Your task to perform on an android device: Search for amazon basics triple a on walmart.com, select the first entry, and add it to the cart. Image 0: 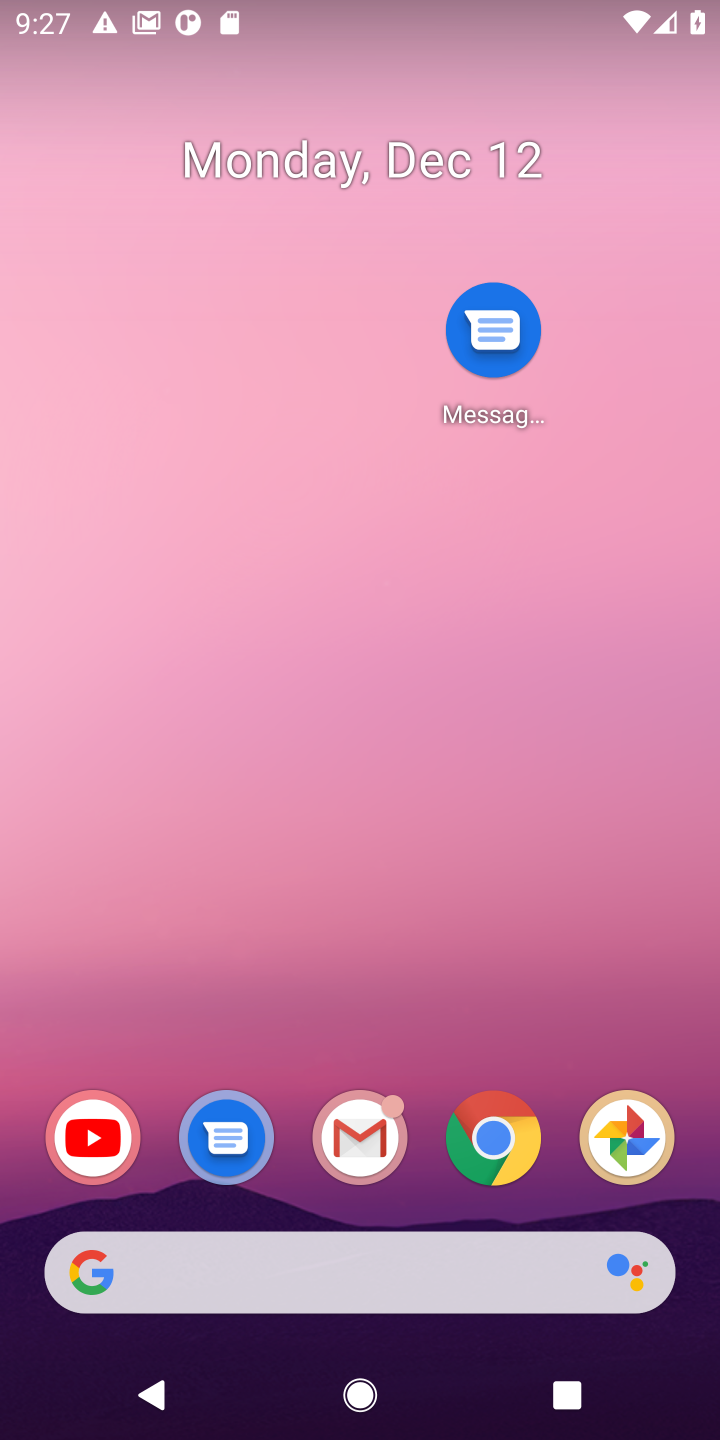
Step 0: drag from (279, 1241) to (390, 341)
Your task to perform on an android device: Search for amazon basics triple a on walmart.com, select the first entry, and add it to the cart. Image 1: 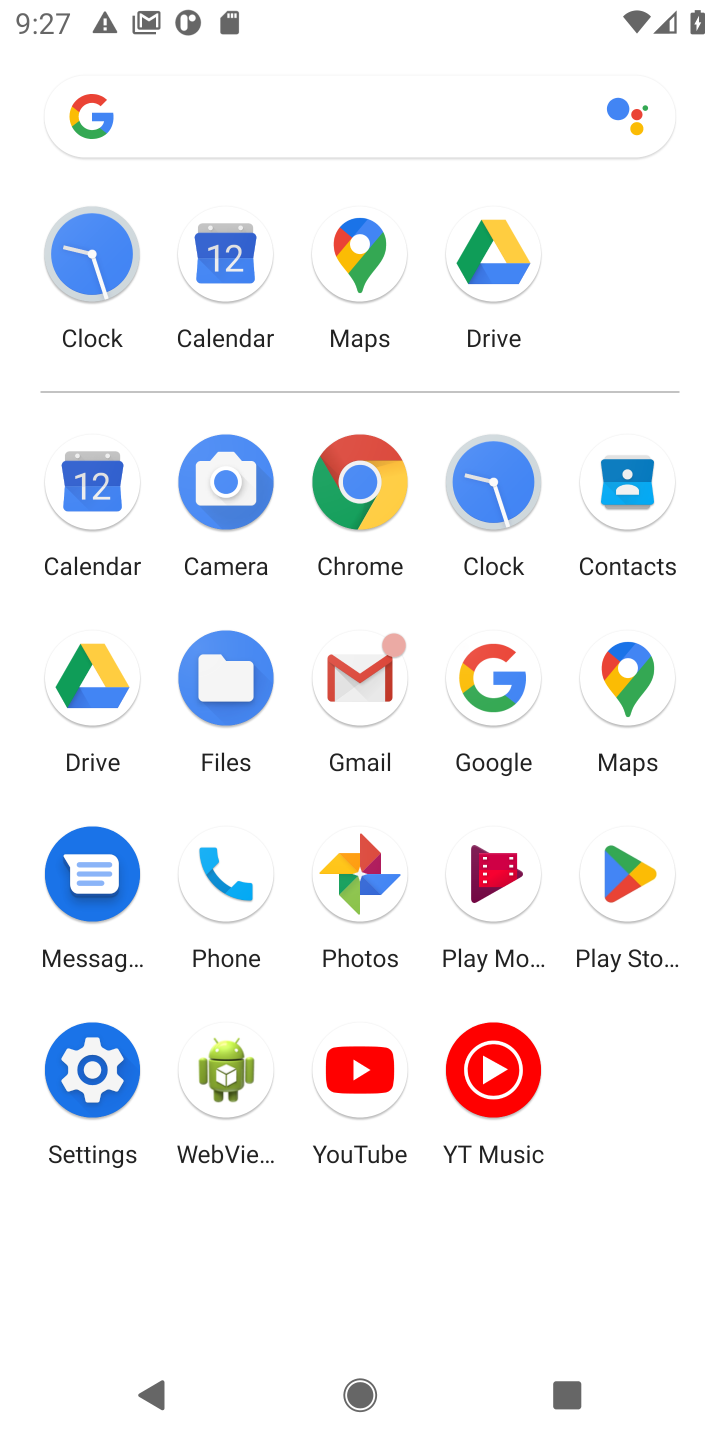
Step 1: click (485, 676)
Your task to perform on an android device: Search for amazon basics triple a on walmart.com, select the first entry, and add it to the cart. Image 2: 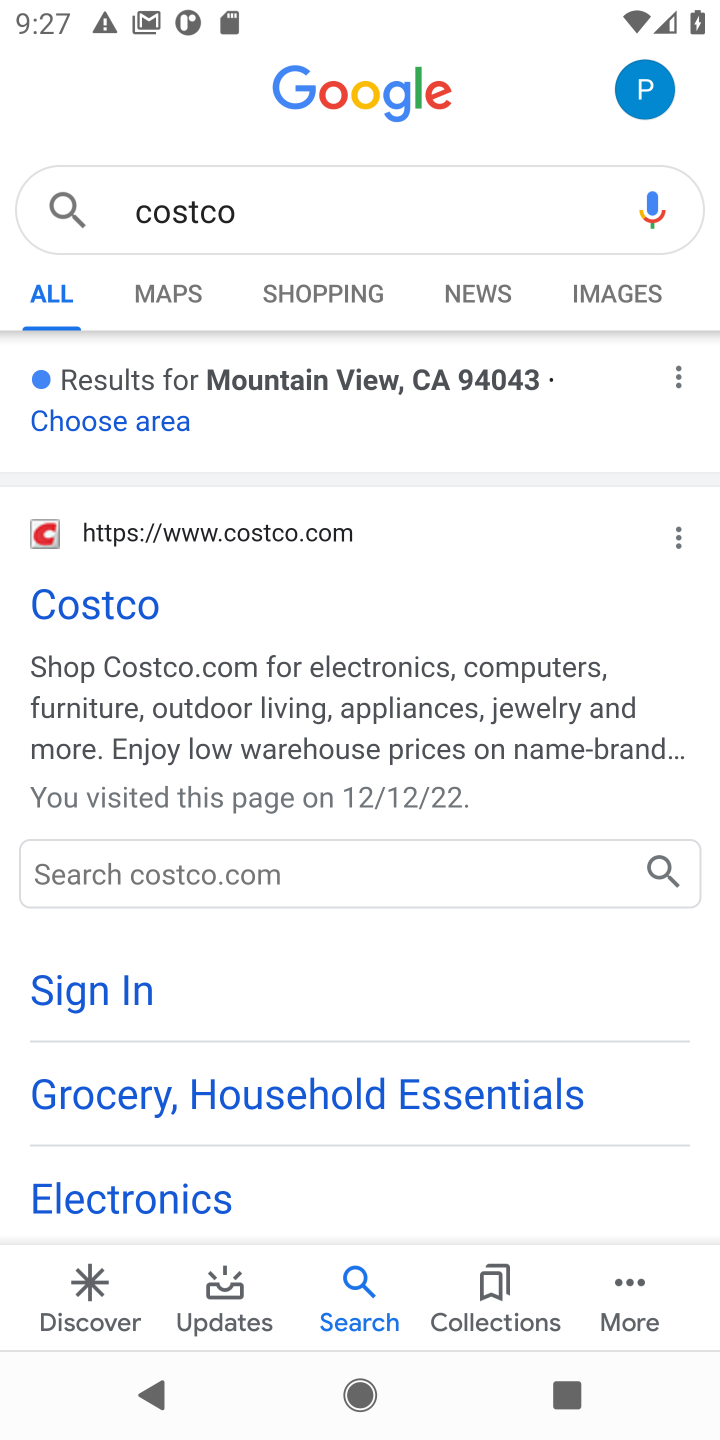
Step 2: click (203, 206)
Your task to perform on an android device: Search for amazon basics triple a on walmart.com, select the first entry, and add it to the cart. Image 3: 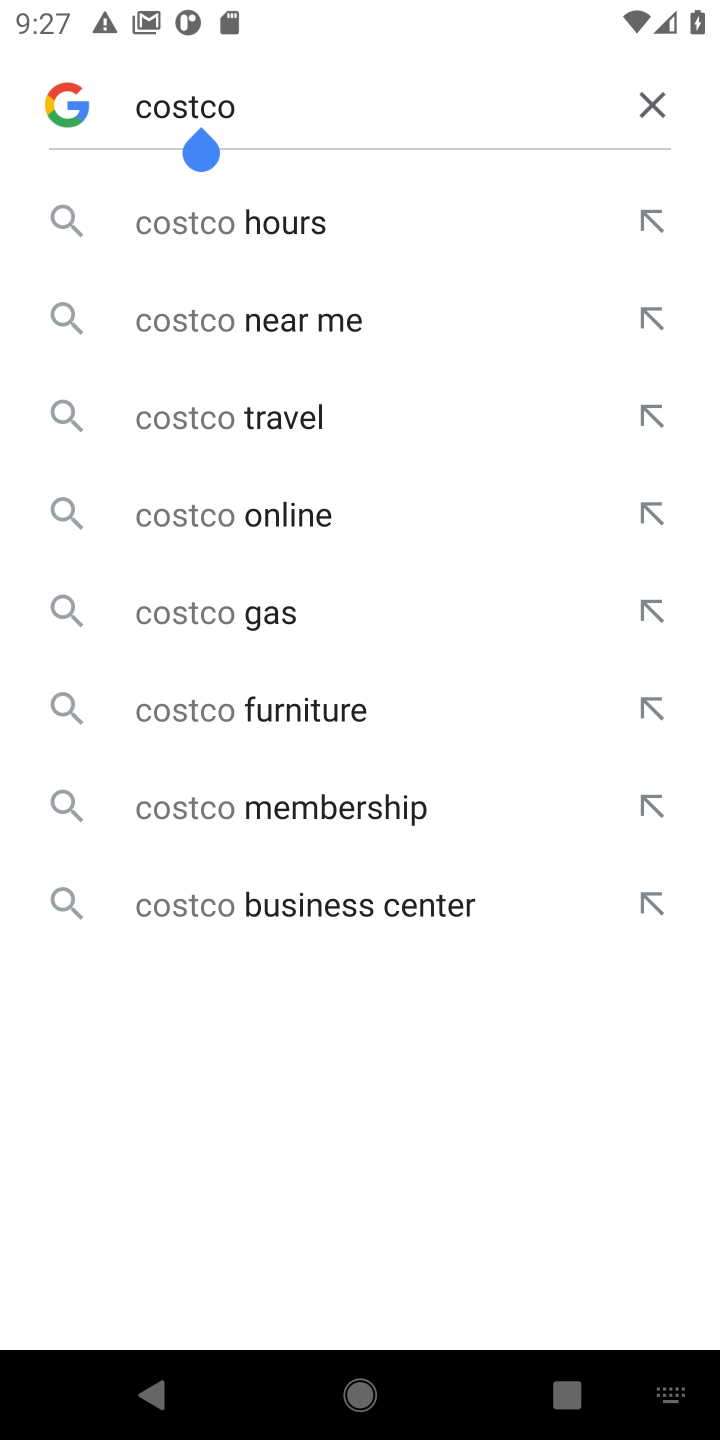
Step 3: click (636, 103)
Your task to perform on an android device: Search for amazon basics triple a on walmart.com, select the first entry, and add it to the cart. Image 4: 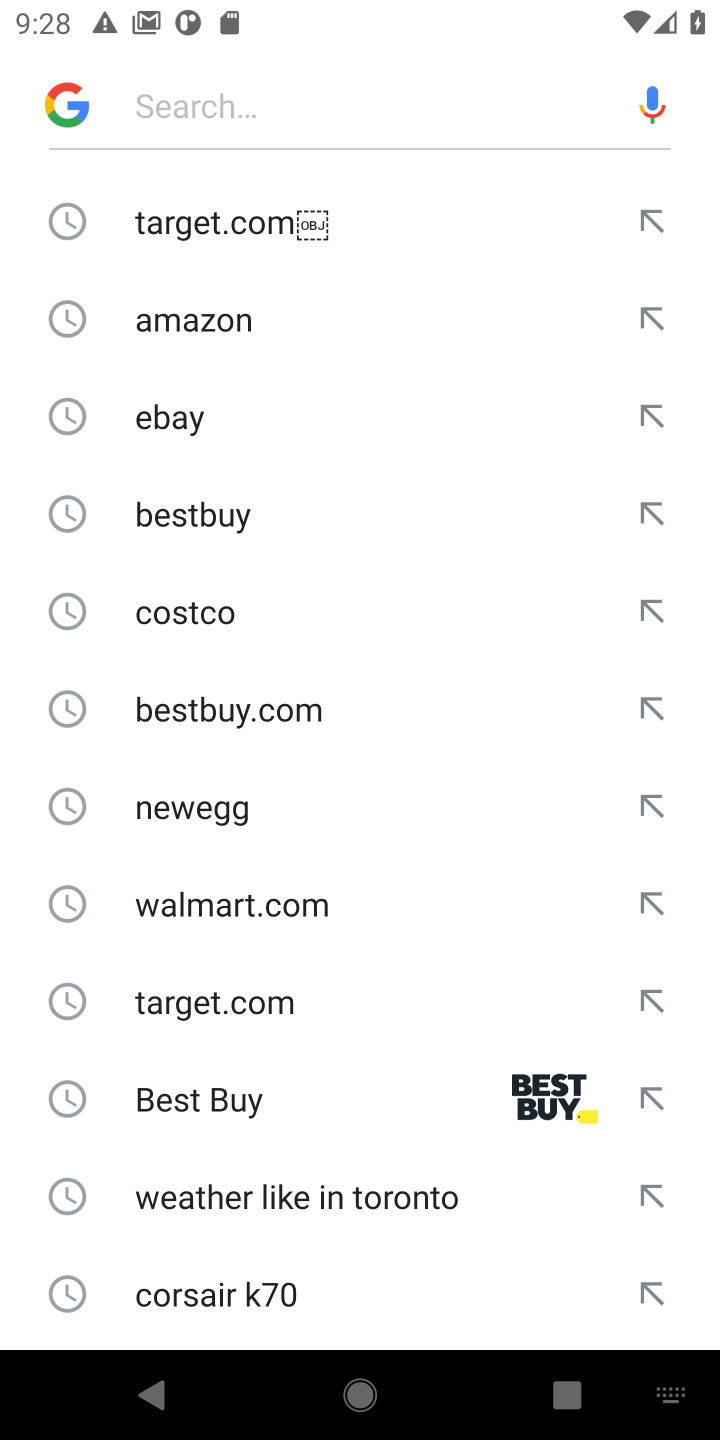
Step 4: click (196, 904)
Your task to perform on an android device: Search for amazon basics triple a on walmart.com, select the first entry, and add it to the cart. Image 5: 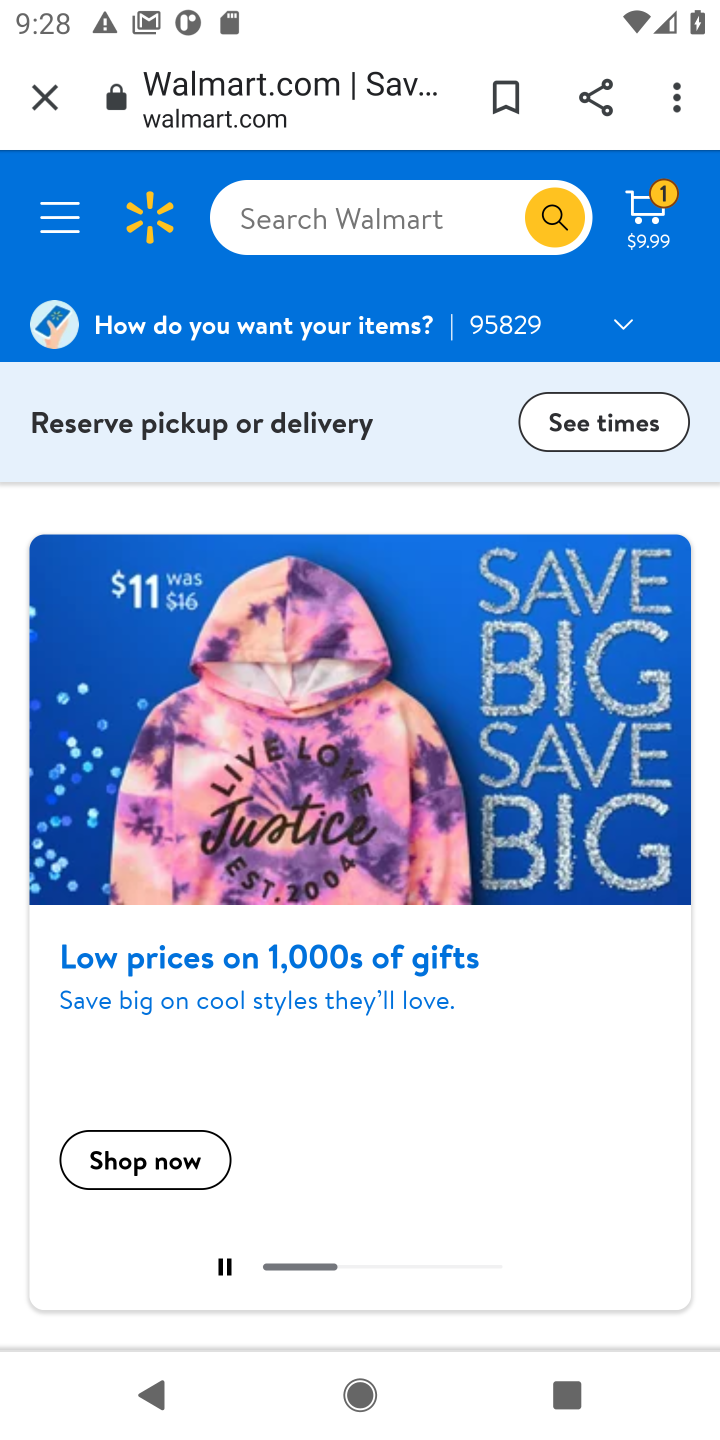
Step 5: click (277, 215)
Your task to perform on an android device: Search for amazon basics triple a on walmart.com, select the first entry, and add it to the cart. Image 6: 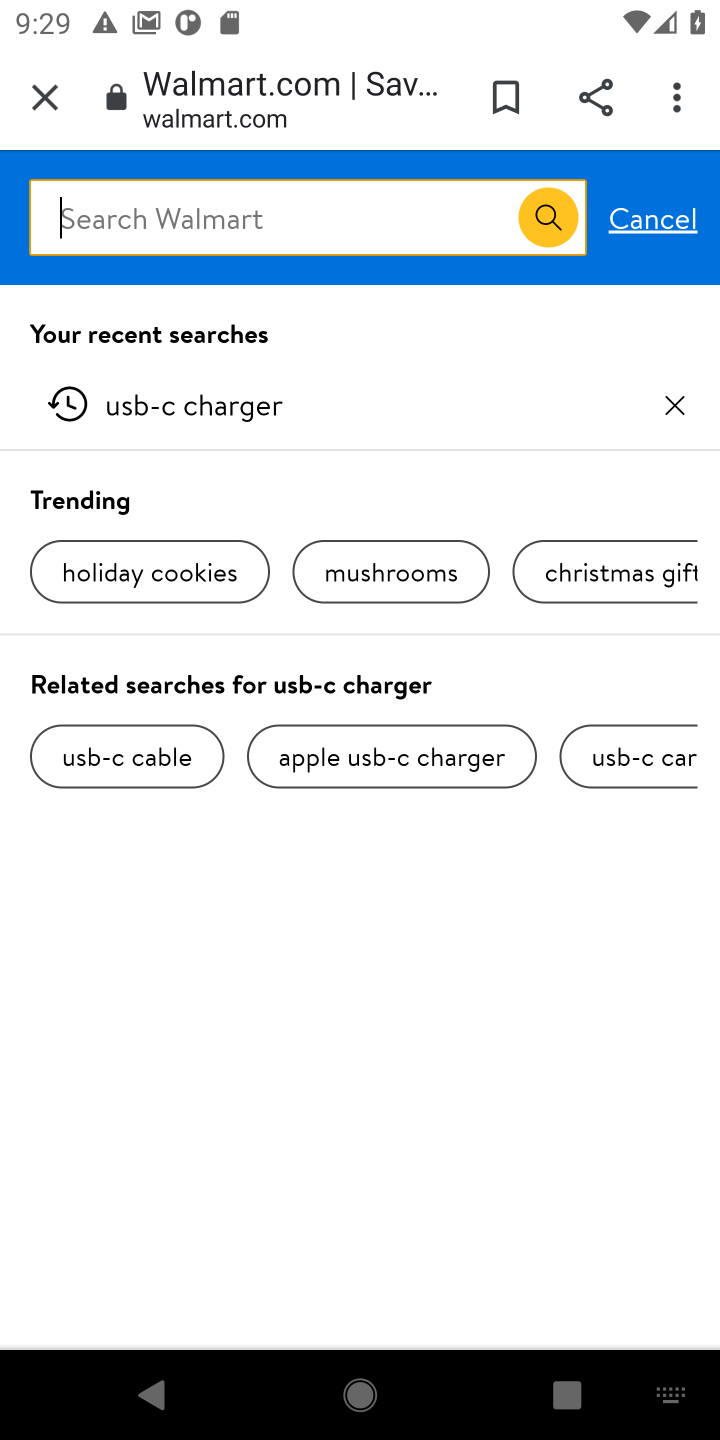
Step 6: type "amazon basics triple a"
Your task to perform on an android device: Search for amazon basics triple a on walmart.com, select the first entry, and add it to the cart. Image 7: 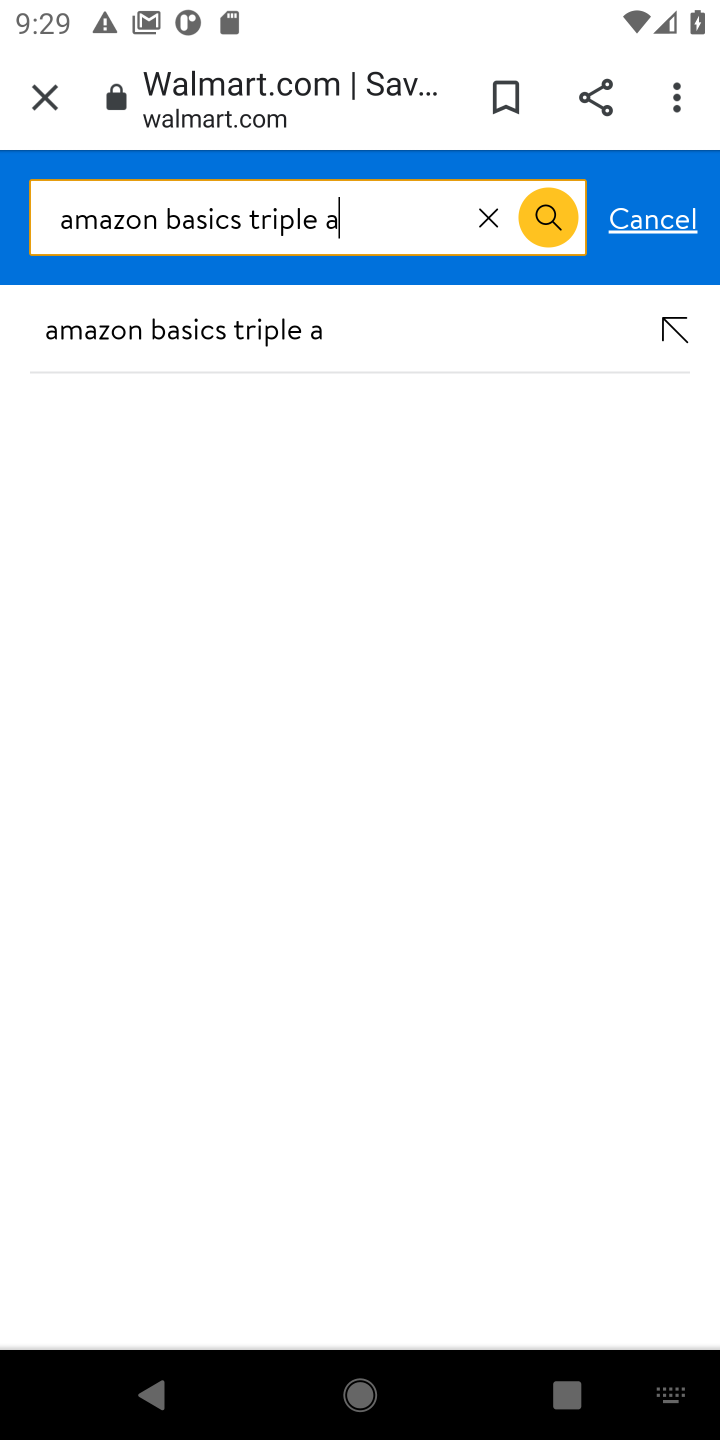
Step 7: click (580, 211)
Your task to perform on an android device: Search for amazon basics triple a on walmart.com, select the first entry, and add it to the cart. Image 8: 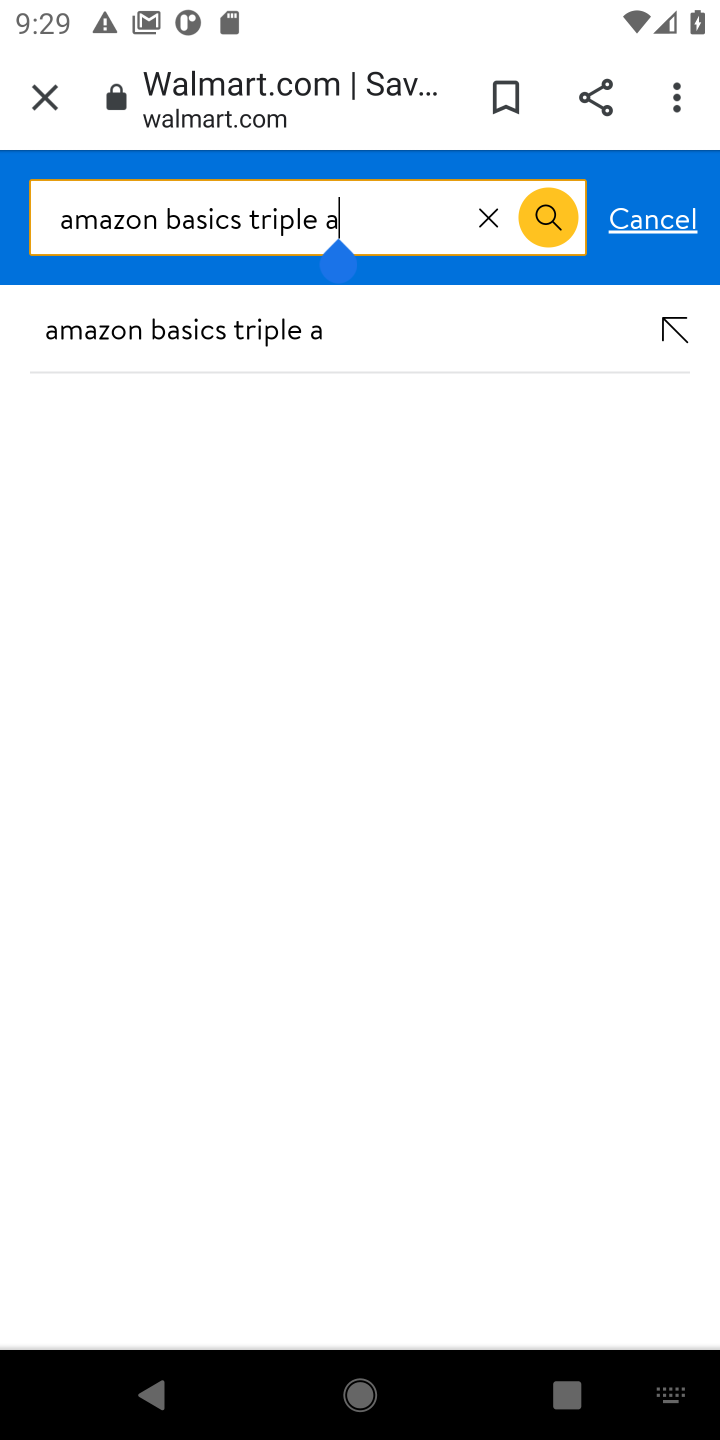
Step 8: click (546, 205)
Your task to perform on an android device: Search for amazon basics triple a on walmart.com, select the first entry, and add it to the cart. Image 9: 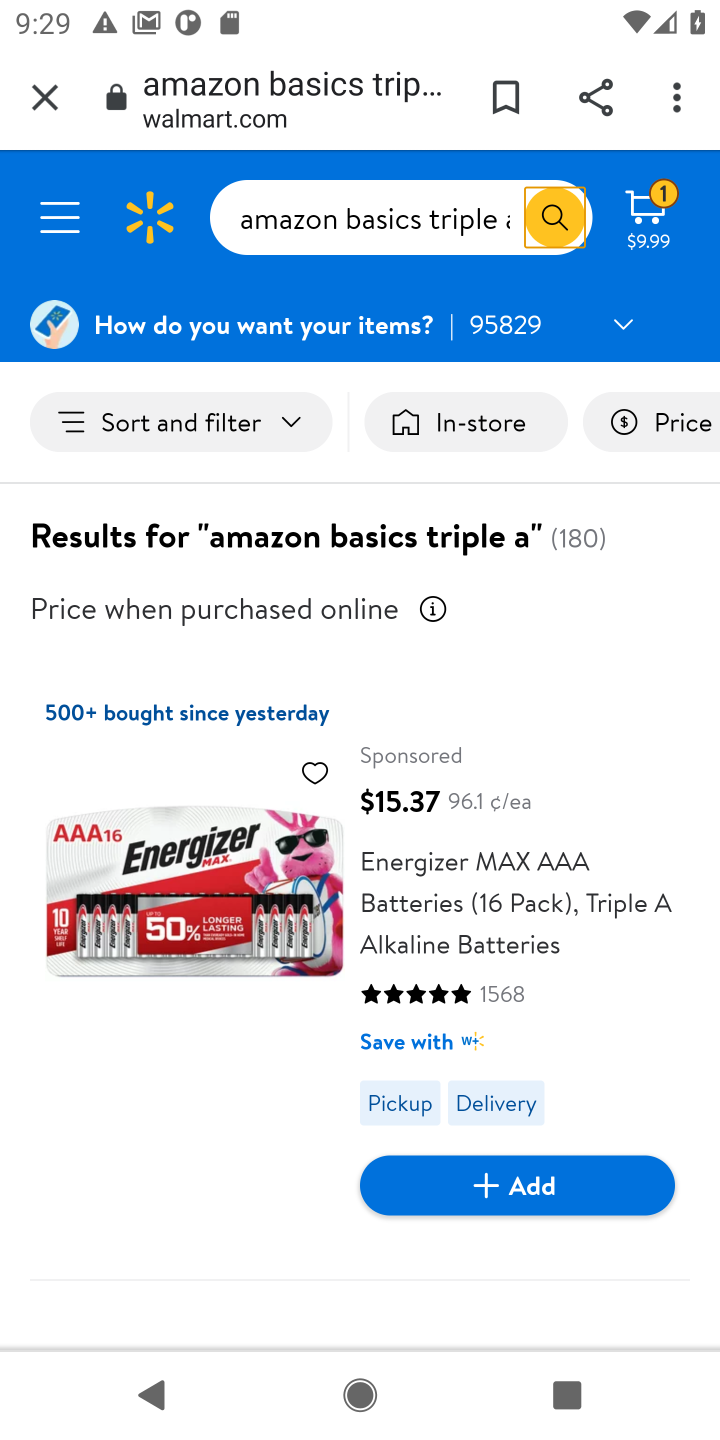
Step 9: click (544, 1181)
Your task to perform on an android device: Search for amazon basics triple a on walmart.com, select the first entry, and add it to the cart. Image 10: 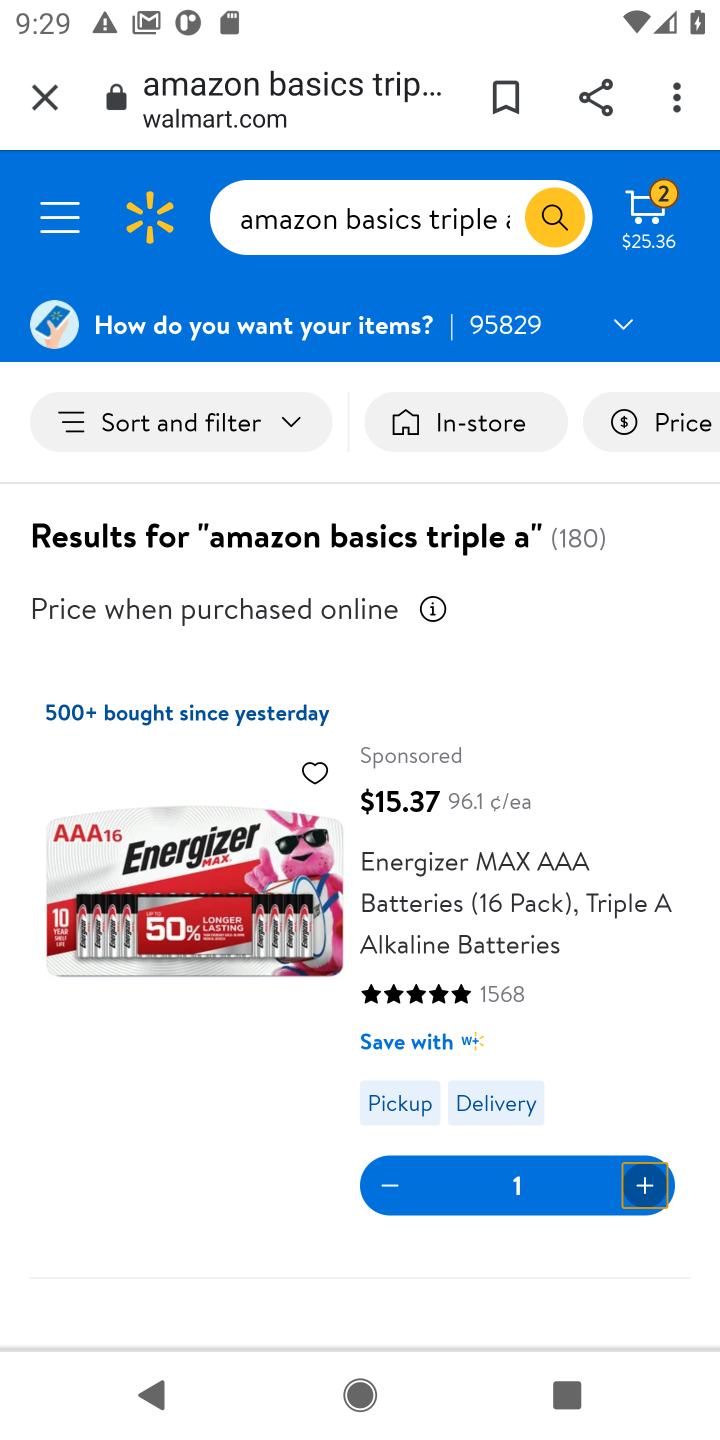
Step 10: drag from (174, 1275) to (178, 788)
Your task to perform on an android device: Search for amazon basics triple a on walmart.com, select the first entry, and add it to the cart. Image 11: 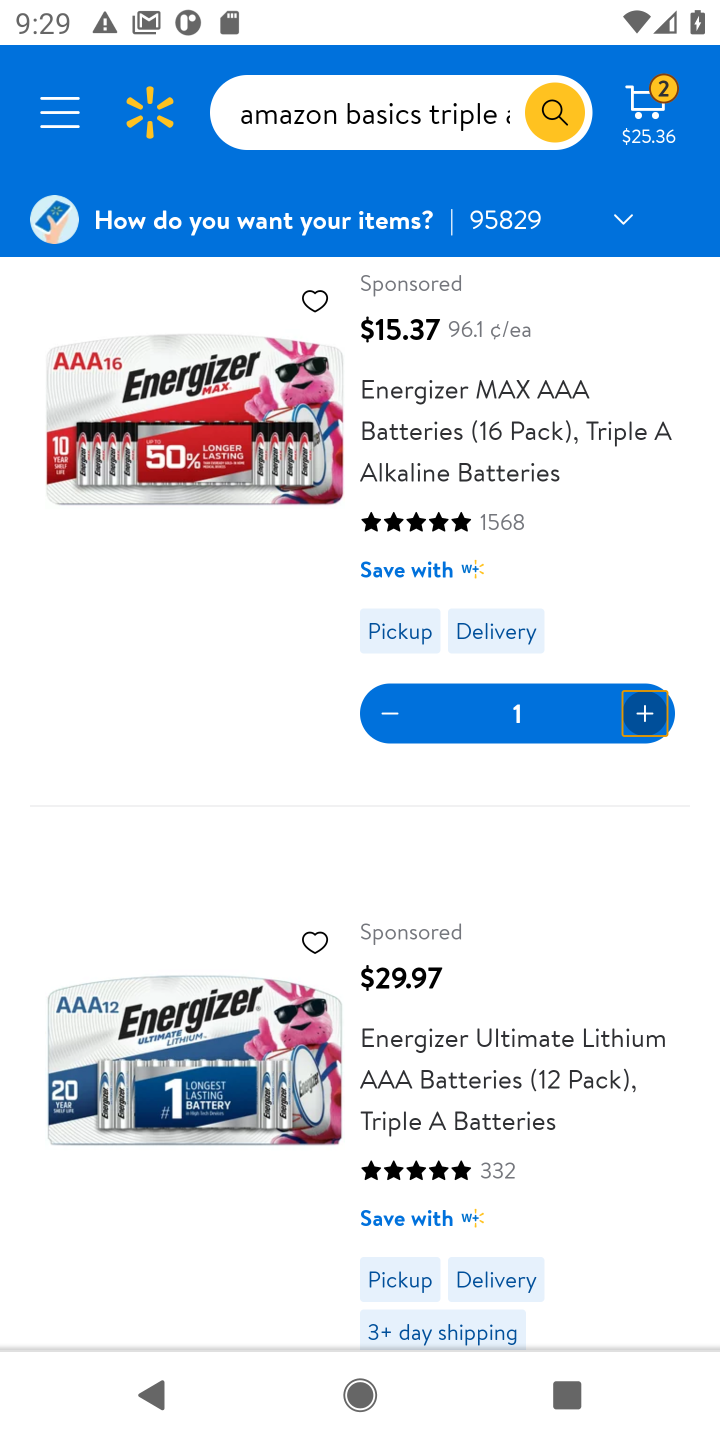
Step 11: click (648, 101)
Your task to perform on an android device: Search for amazon basics triple a on walmart.com, select the first entry, and add it to the cart. Image 12: 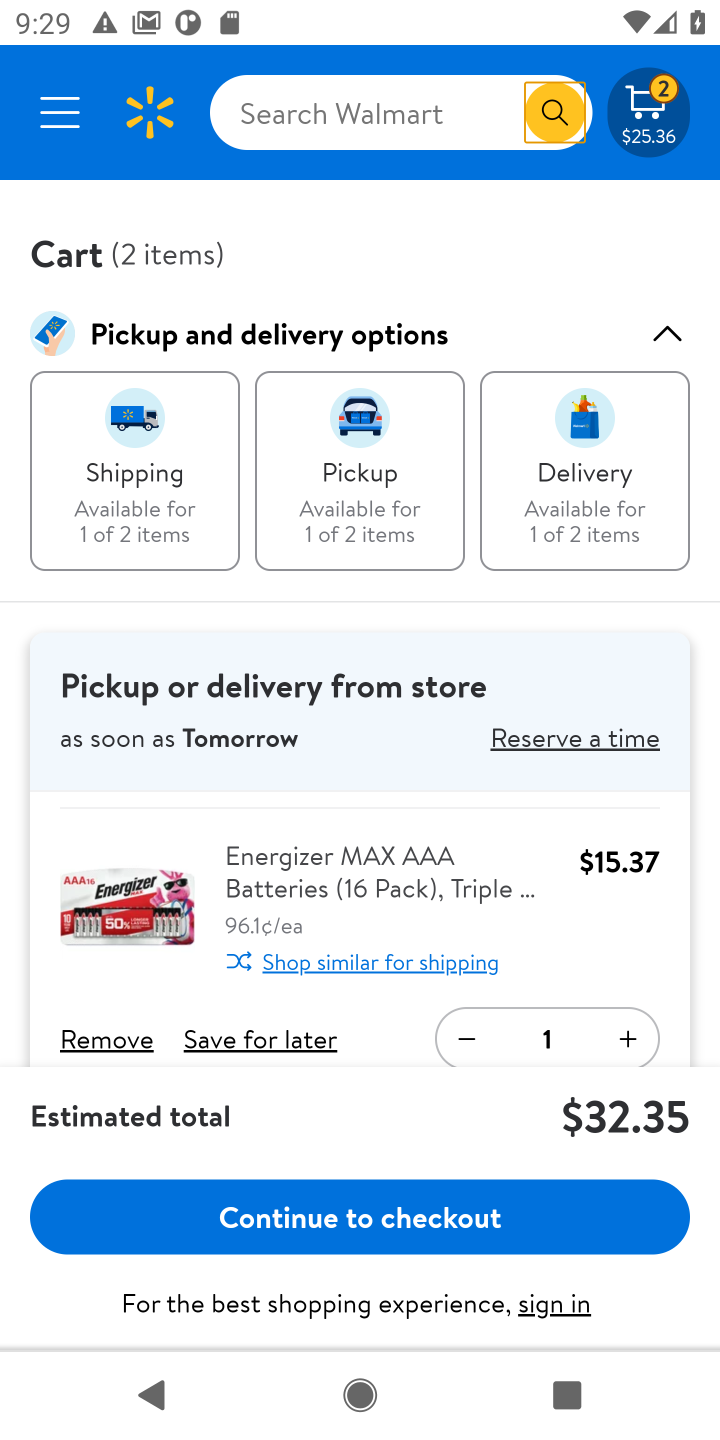
Step 12: click (349, 1236)
Your task to perform on an android device: Search for amazon basics triple a on walmart.com, select the first entry, and add it to the cart. Image 13: 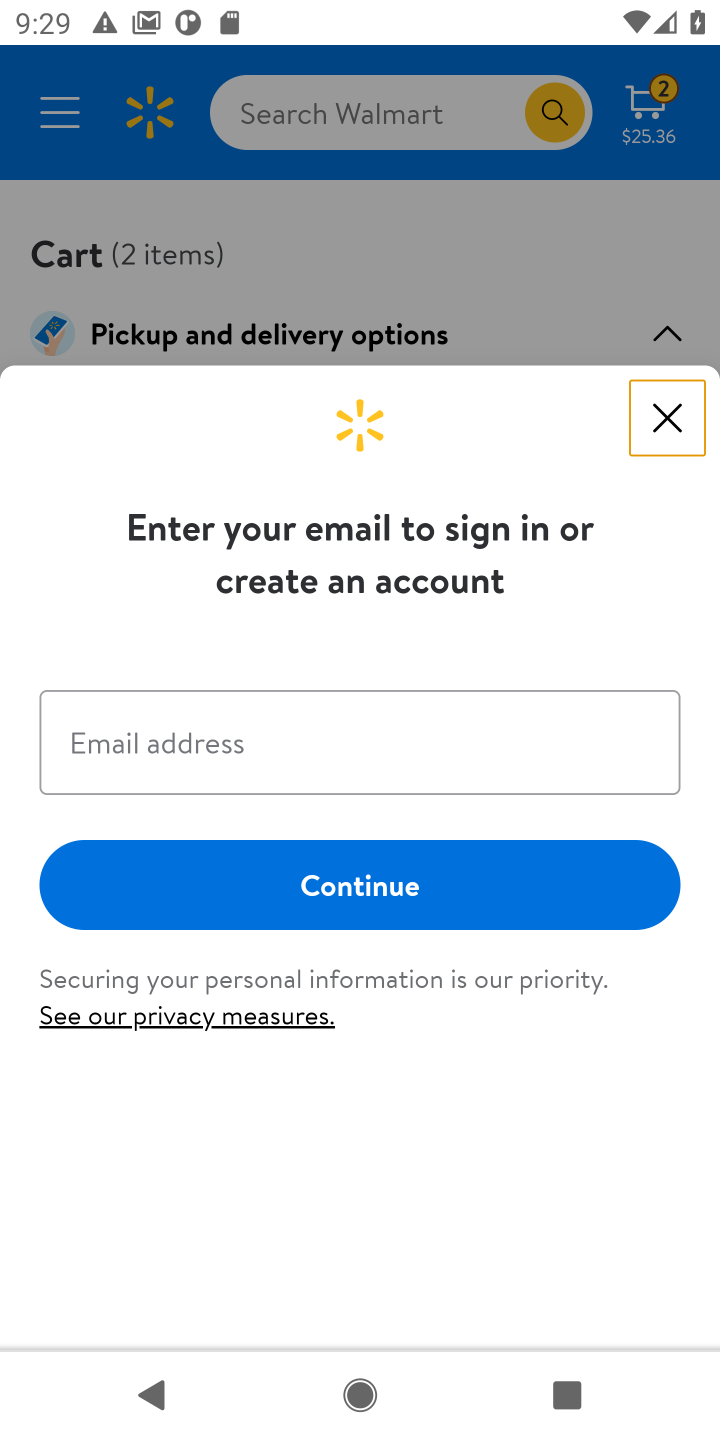
Step 13: task complete